Your task to perform on an android device: turn on bluetooth scan Image 0: 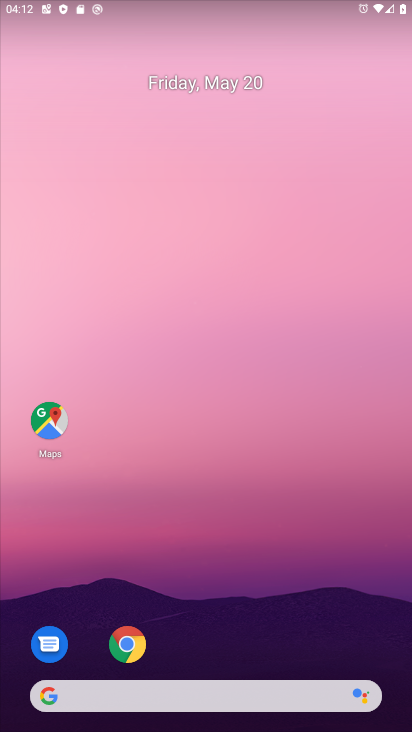
Step 0: drag from (394, 592) to (318, 162)
Your task to perform on an android device: turn on bluetooth scan Image 1: 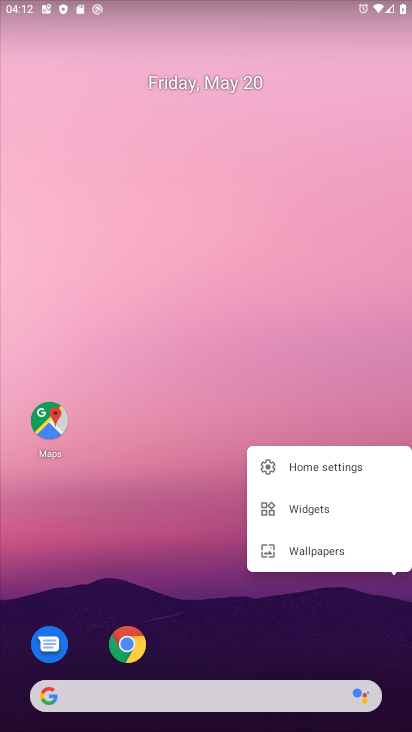
Step 1: click (211, 453)
Your task to perform on an android device: turn on bluetooth scan Image 2: 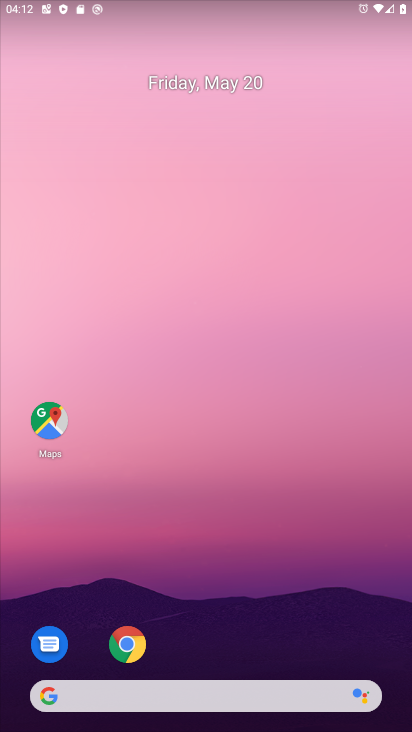
Step 2: drag from (239, 603) to (198, 0)
Your task to perform on an android device: turn on bluetooth scan Image 3: 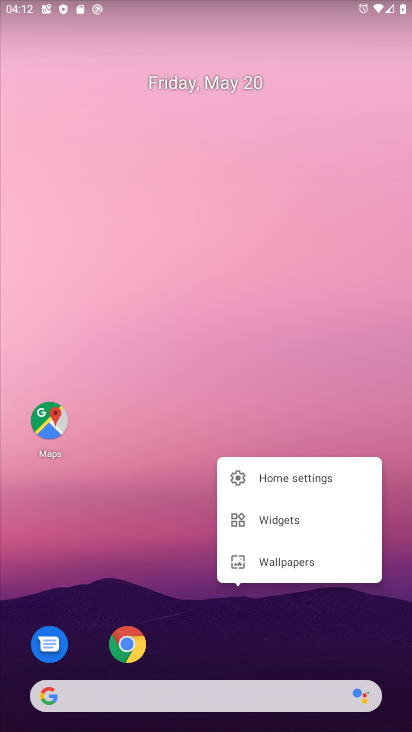
Step 3: click (176, 329)
Your task to perform on an android device: turn on bluetooth scan Image 4: 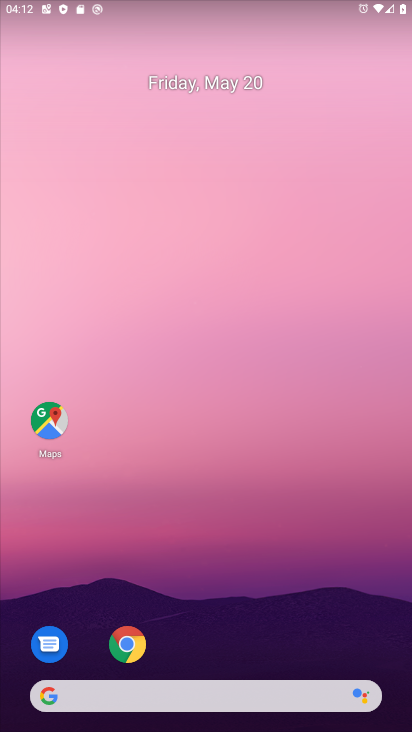
Step 4: drag from (285, 615) to (233, 209)
Your task to perform on an android device: turn on bluetooth scan Image 5: 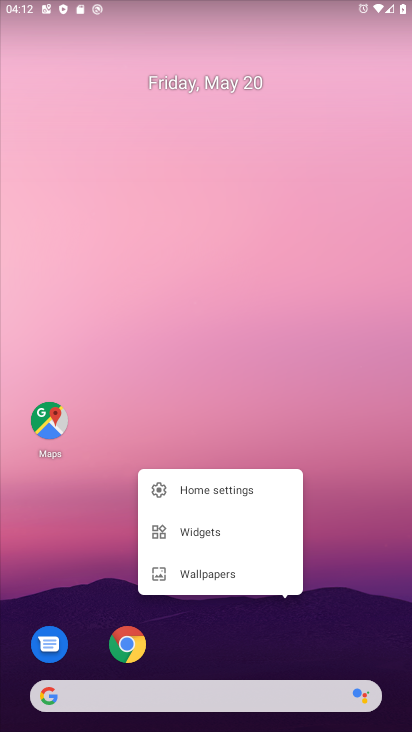
Step 5: click (207, 318)
Your task to perform on an android device: turn on bluetooth scan Image 6: 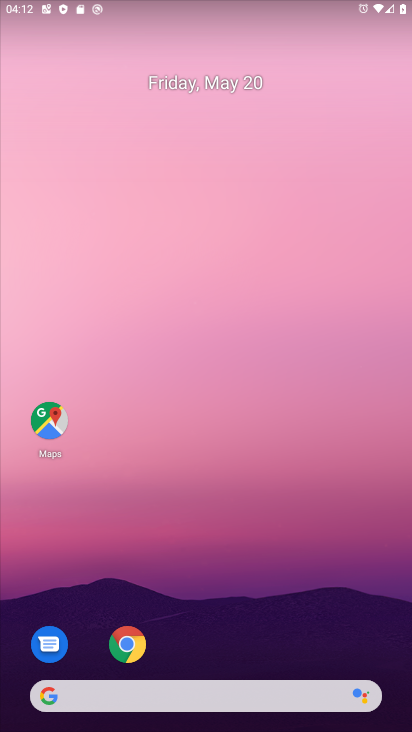
Step 6: drag from (243, 598) to (188, 122)
Your task to perform on an android device: turn on bluetooth scan Image 7: 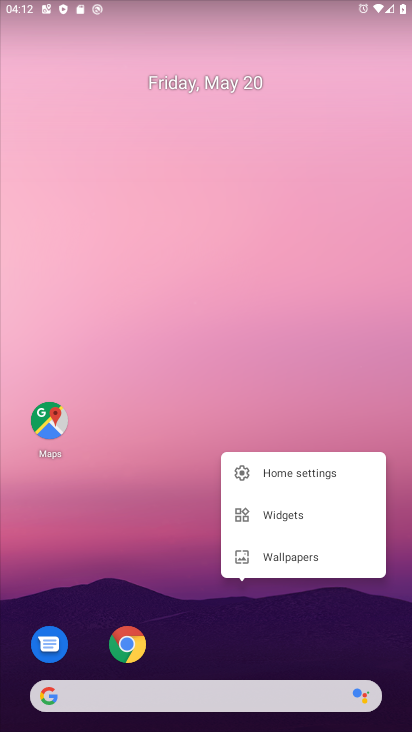
Step 7: click (199, 311)
Your task to perform on an android device: turn on bluetooth scan Image 8: 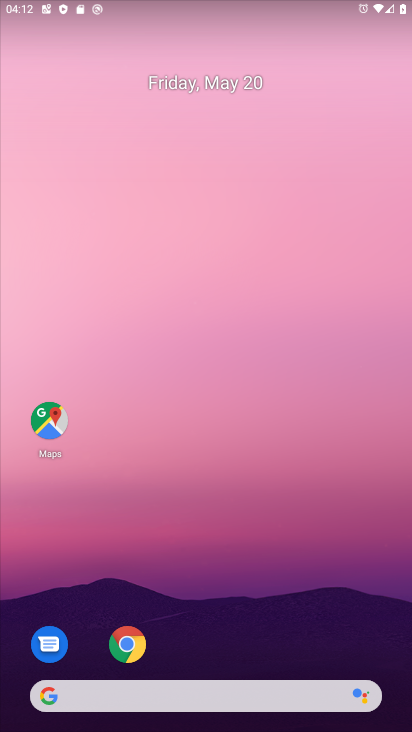
Step 8: drag from (221, 561) to (224, 103)
Your task to perform on an android device: turn on bluetooth scan Image 9: 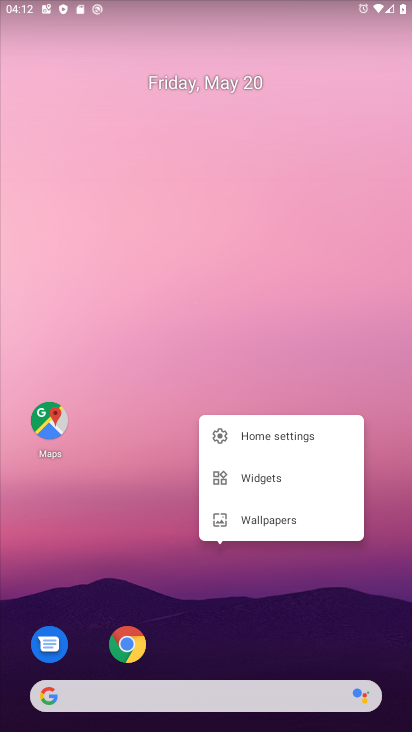
Step 9: click (224, 103)
Your task to perform on an android device: turn on bluetooth scan Image 10: 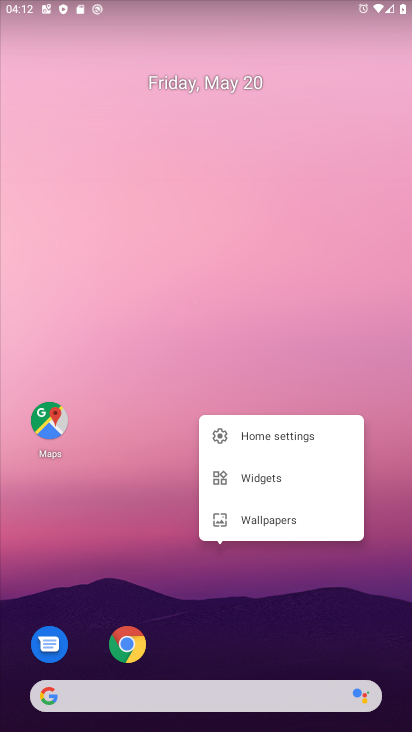
Step 10: click (224, 103)
Your task to perform on an android device: turn on bluetooth scan Image 11: 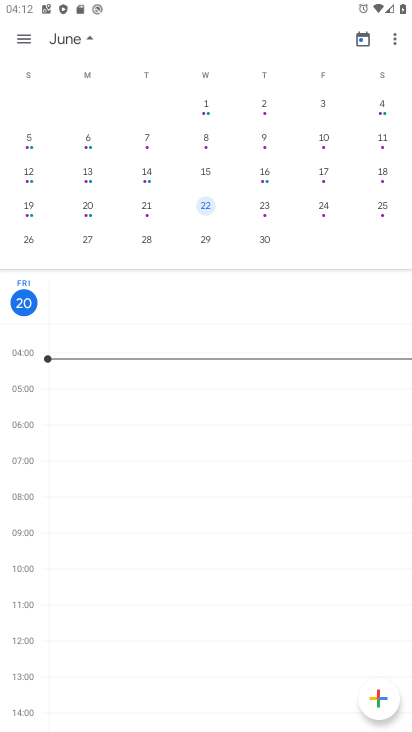
Step 11: press home button
Your task to perform on an android device: turn on bluetooth scan Image 12: 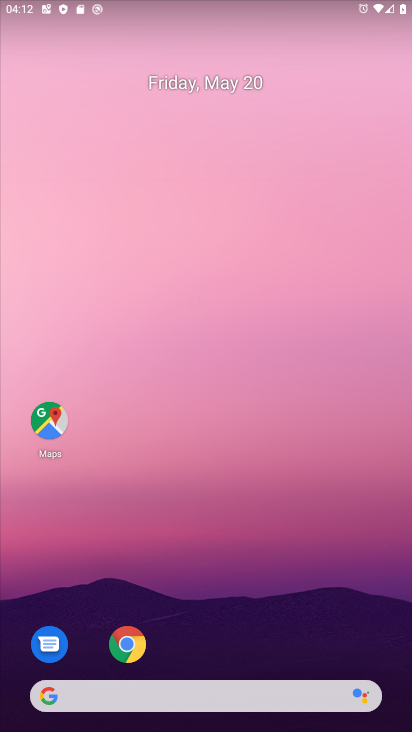
Step 12: drag from (221, 589) to (198, 81)
Your task to perform on an android device: turn on bluetooth scan Image 13: 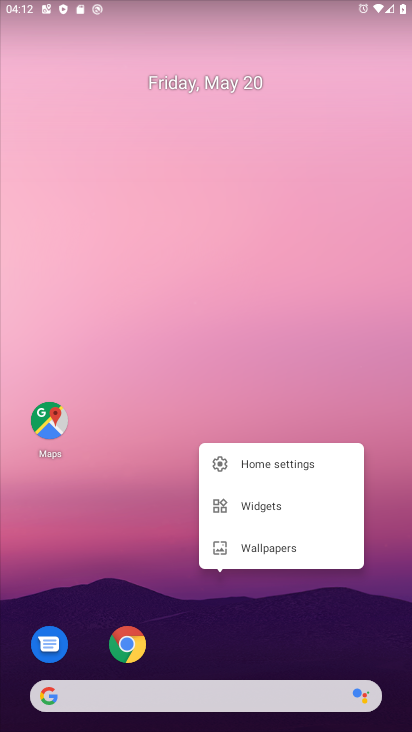
Step 13: click (198, 81)
Your task to perform on an android device: turn on bluetooth scan Image 14: 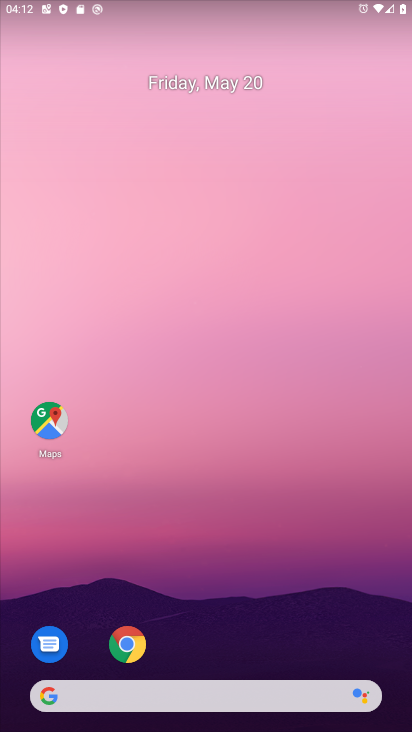
Step 14: drag from (219, 611) to (207, 28)
Your task to perform on an android device: turn on bluetooth scan Image 15: 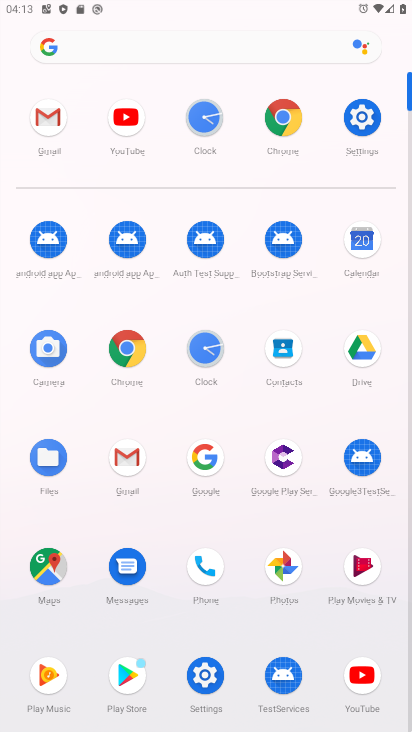
Step 15: click (358, 189)
Your task to perform on an android device: turn on bluetooth scan Image 16: 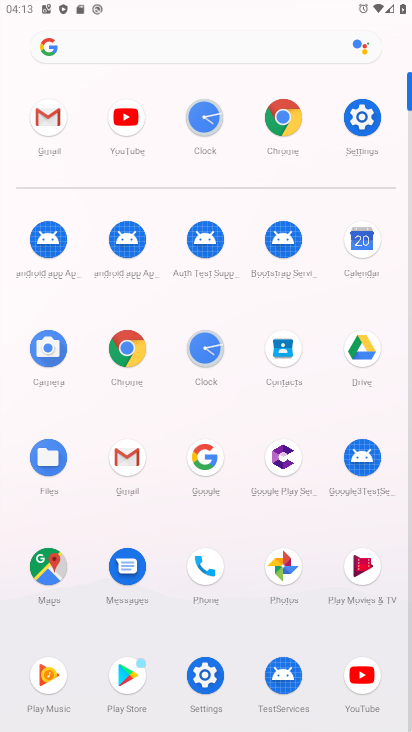
Step 16: click (358, 189)
Your task to perform on an android device: turn on bluetooth scan Image 17: 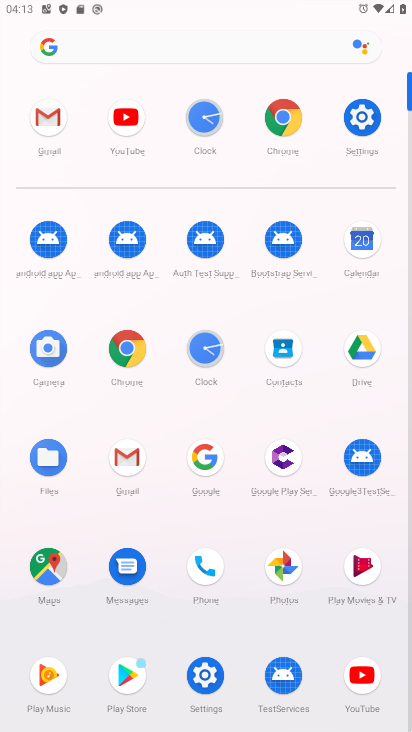
Step 17: click (357, 168)
Your task to perform on an android device: turn on bluetooth scan Image 18: 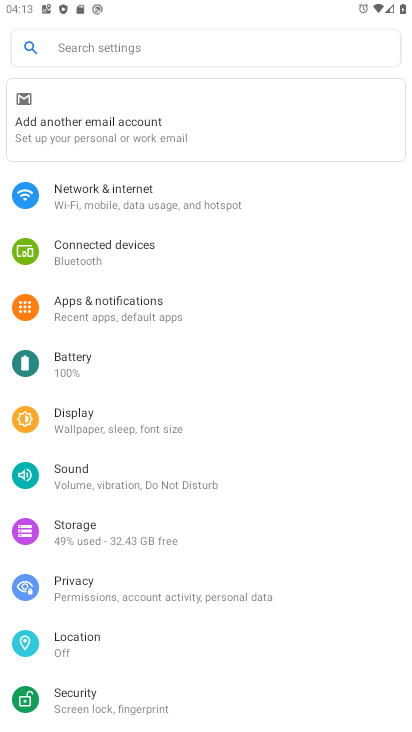
Step 18: click (122, 625)
Your task to perform on an android device: turn on bluetooth scan Image 19: 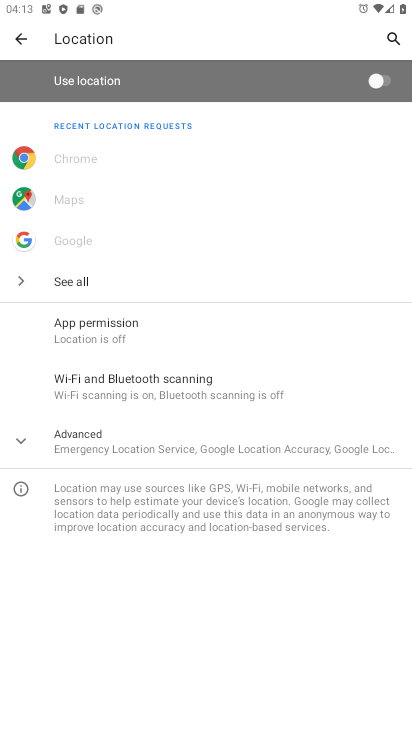
Step 19: click (197, 456)
Your task to perform on an android device: turn on bluetooth scan Image 20: 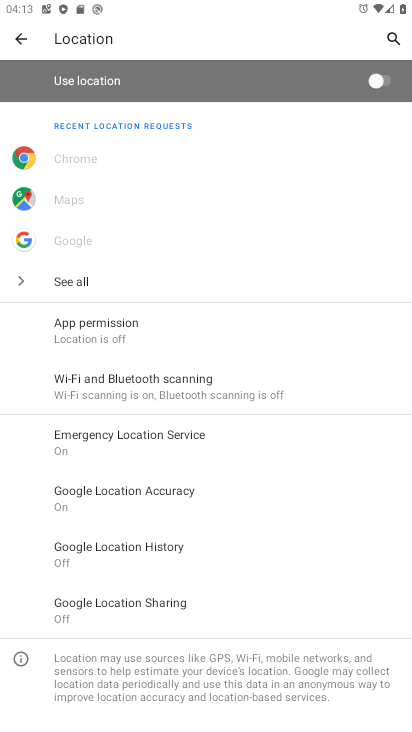
Step 20: click (252, 395)
Your task to perform on an android device: turn on bluetooth scan Image 21: 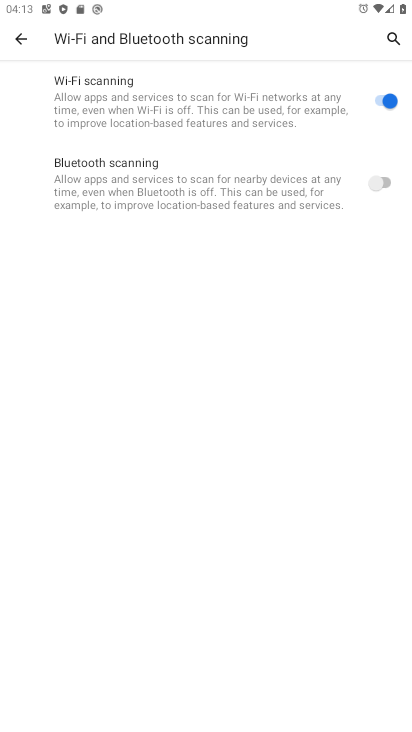
Step 21: click (375, 197)
Your task to perform on an android device: turn on bluetooth scan Image 22: 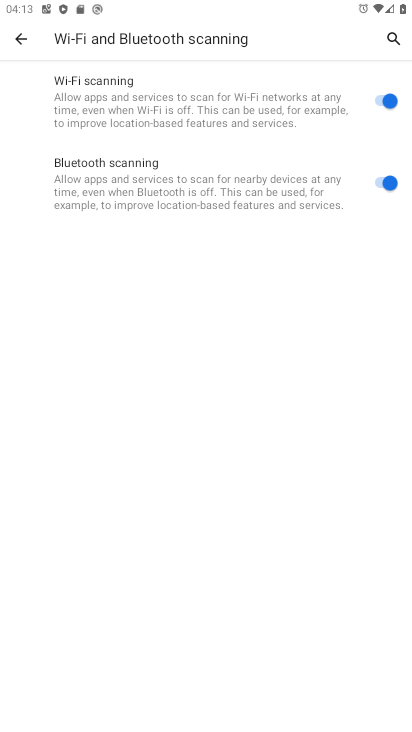
Step 22: task complete